Your task to perform on an android device: Is it going to rain today? Image 0: 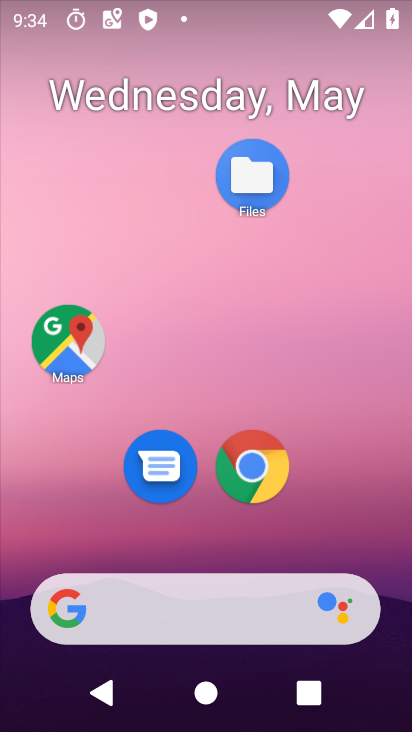
Step 0: drag from (202, 609) to (227, 350)
Your task to perform on an android device: Is it going to rain today? Image 1: 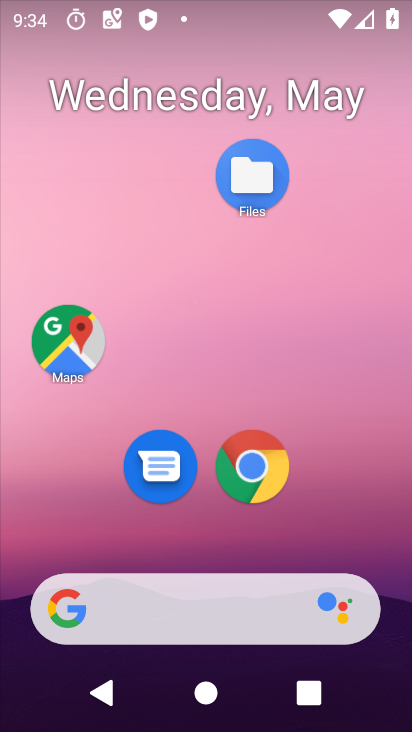
Step 1: drag from (12, 235) to (377, 428)
Your task to perform on an android device: Is it going to rain today? Image 2: 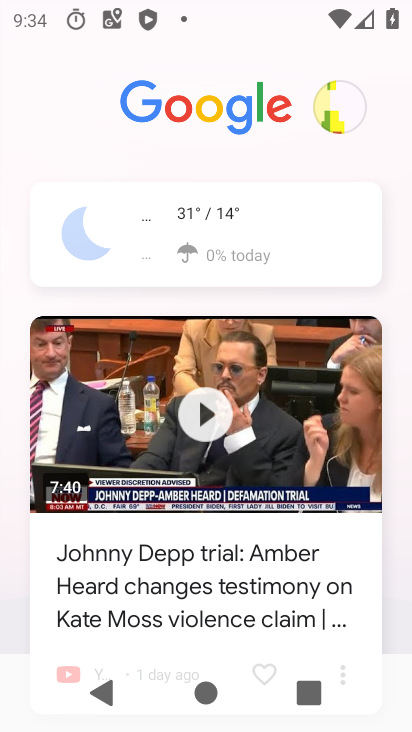
Step 2: click (164, 250)
Your task to perform on an android device: Is it going to rain today? Image 3: 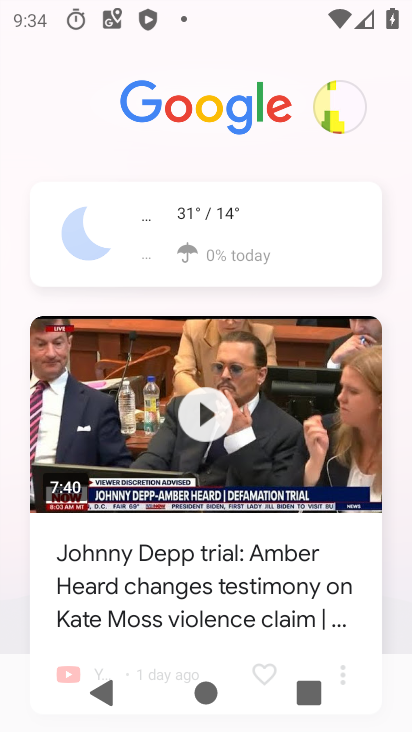
Step 3: click (148, 247)
Your task to perform on an android device: Is it going to rain today? Image 4: 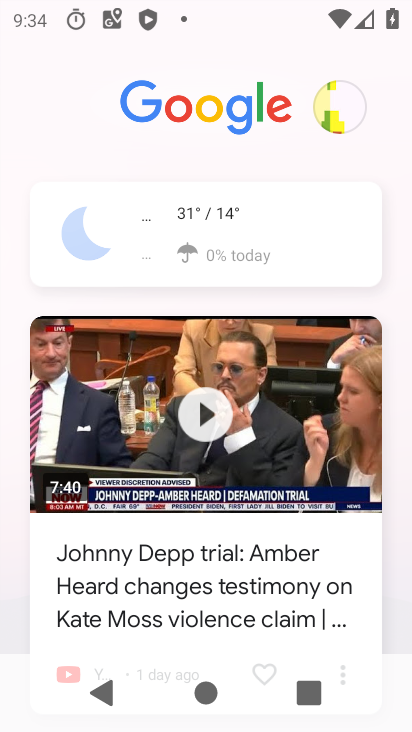
Step 4: click (146, 245)
Your task to perform on an android device: Is it going to rain today? Image 5: 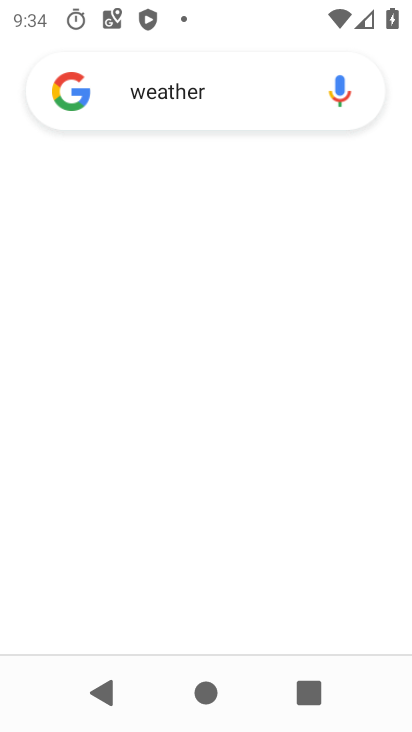
Step 5: click (162, 258)
Your task to perform on an android device: Is it going to rain today? Image 6: 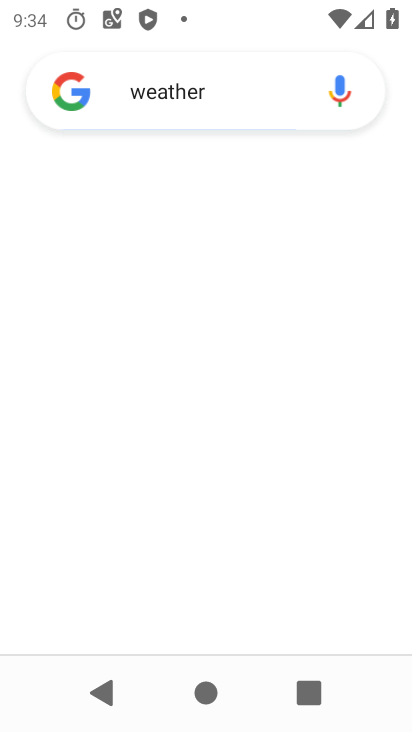
Step 6: click (162, 258)
Your task to perform on an android device: Is it going to rain today? Image 7: 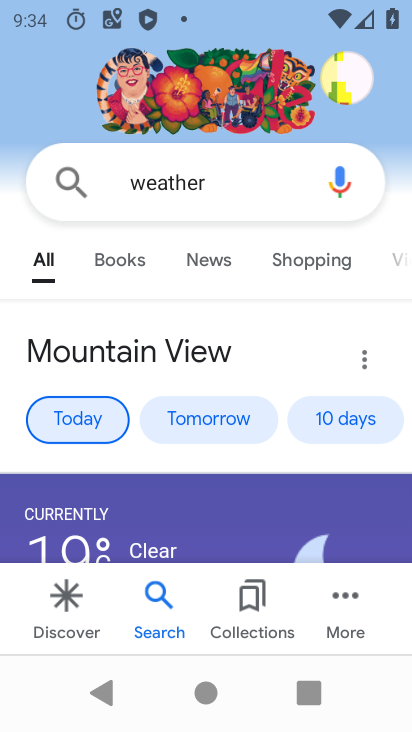
Step 7: task complete